Your task to perform on an android device: change text size in settings app Image 0: 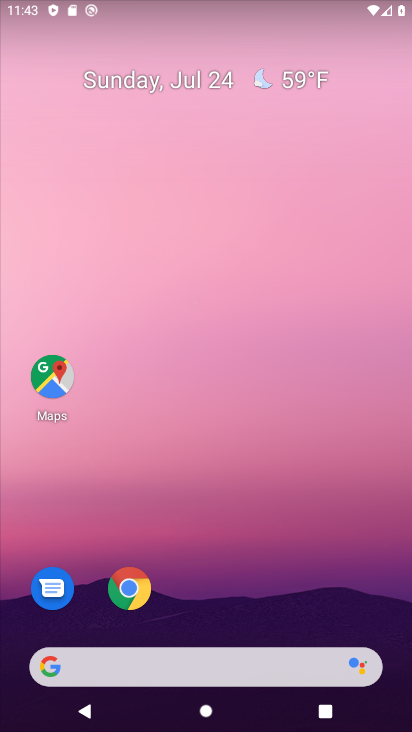
Step 0: drag from (364, 625) to (71, 58)
Your task to perform on an android device: change text size in settings app Image 1: 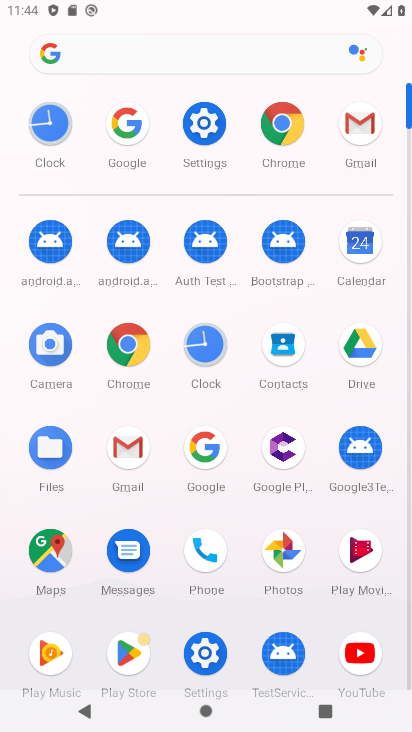
Step 1: click (195, 118)
Your task to perform on an android device: change text size in settings app Image 2: 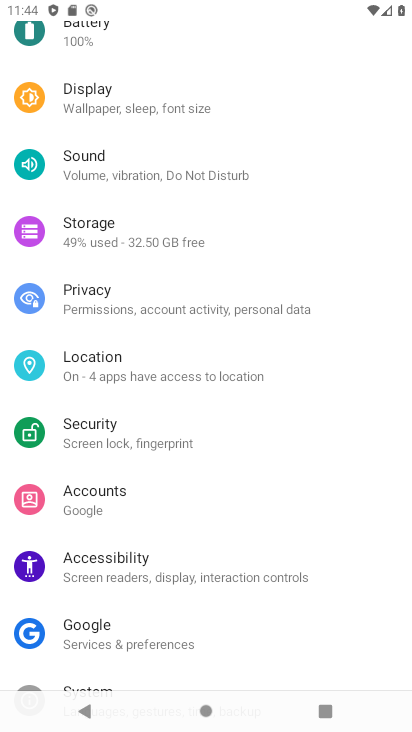
Step 2: click (90, 92)
Your task to perform on an android device: change text size in settings app Image 3: 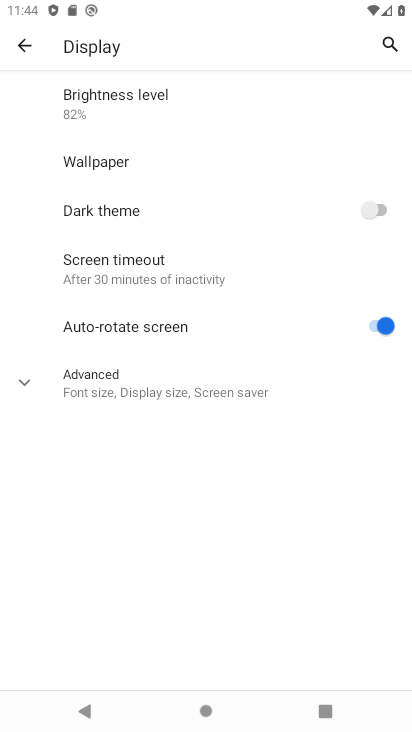
Step 3: click (66, 390)
Your task to perform on an android device: change text size in settings app Image 4: 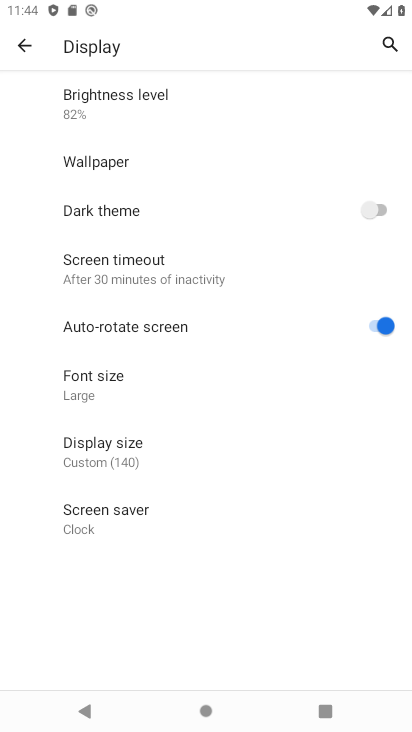
Step 4: click (118, 392)
Your task to perform on an android device: change text size in settings app Image 5: 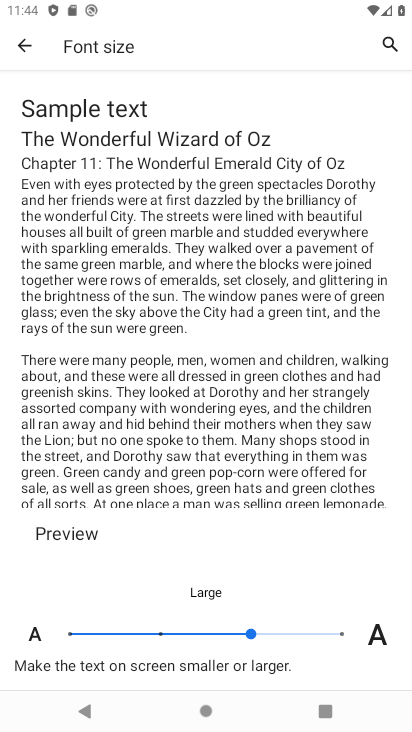
Step 5: click (341, 632)
Your task to perform on an android device: change text size in settings app Image 6: 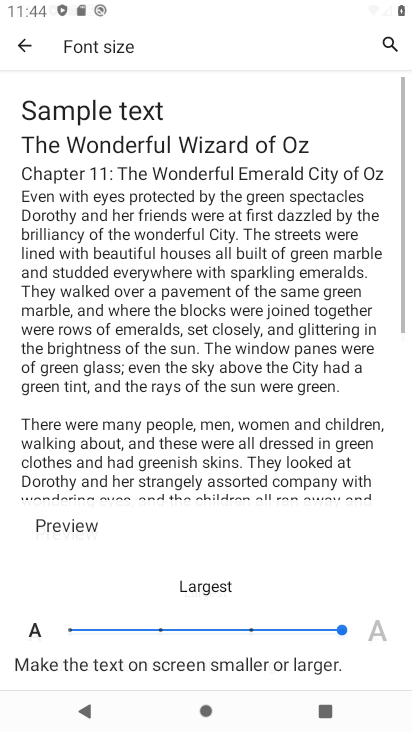
Step 6: task complete